Your task to perform on an android device: Check the news Image 0: 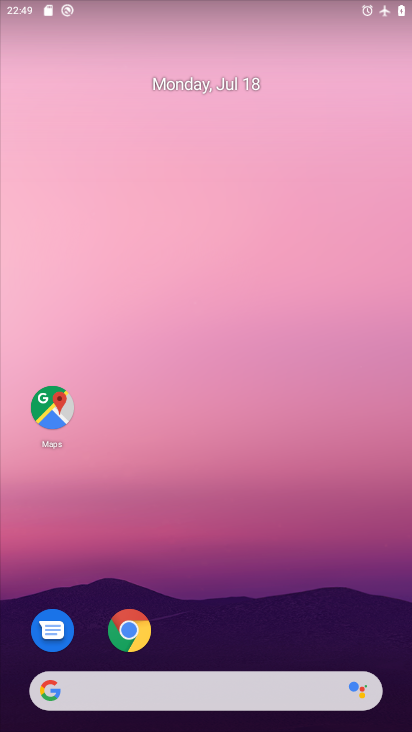
Step 0: click (289, 370)
Your task to perform on an android device: Check the news Image 1: 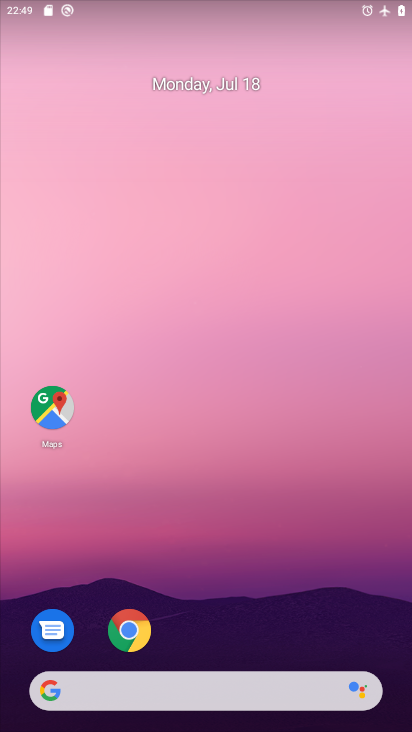
Step 1: drag from (150, 650) to (280, 175)
Your task to perform on an android device: Check the news Image 2: 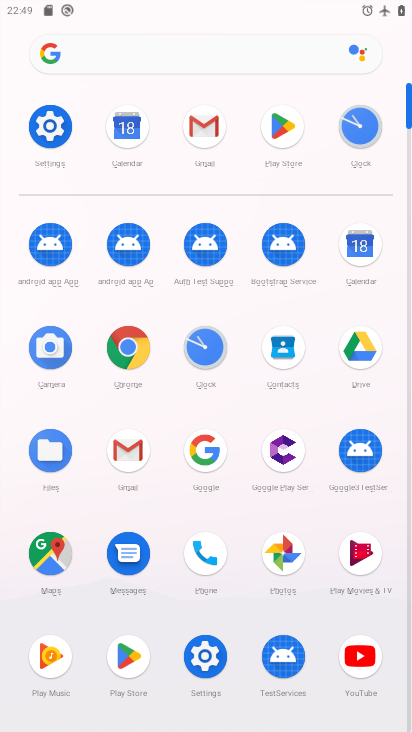
Step 2: click (123, 339)
Your task to perform on an android device: Check the news Image 3: 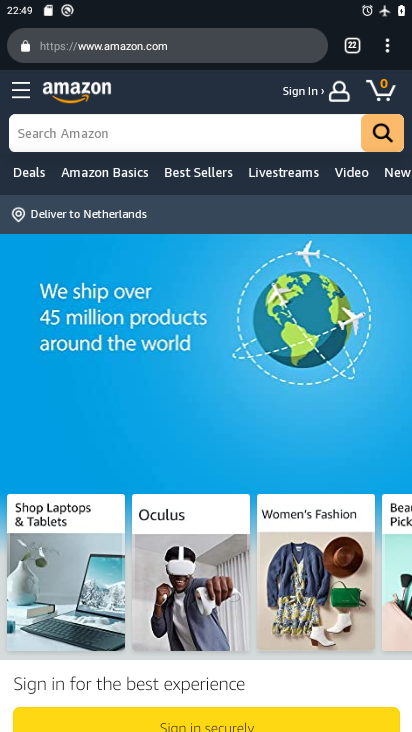
Step 3: click (387, 55)
Your task to perform on an android device: Check the news Image 4: 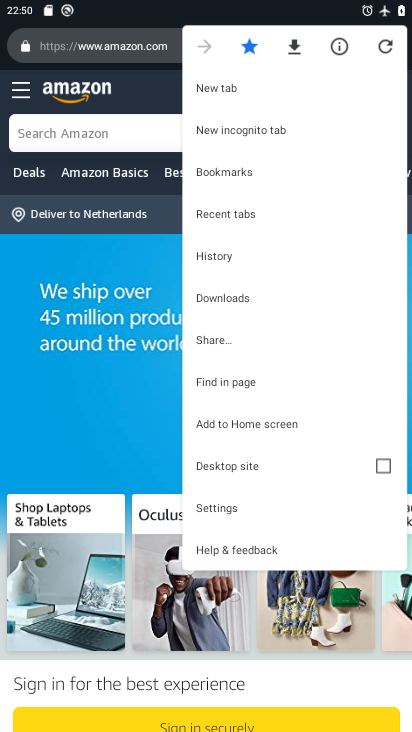
Step 4: click (260, 82)
Your task to perform on an android device: Check the news Image 5: 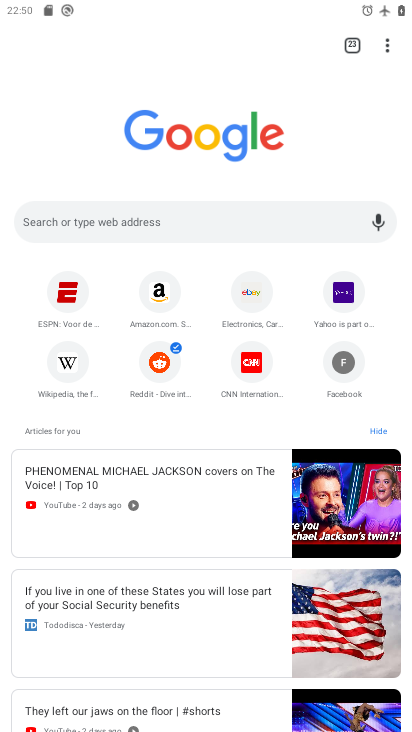
Step 5: click (145, 215)
Your task to perform on an android device: Check the news Image 6: 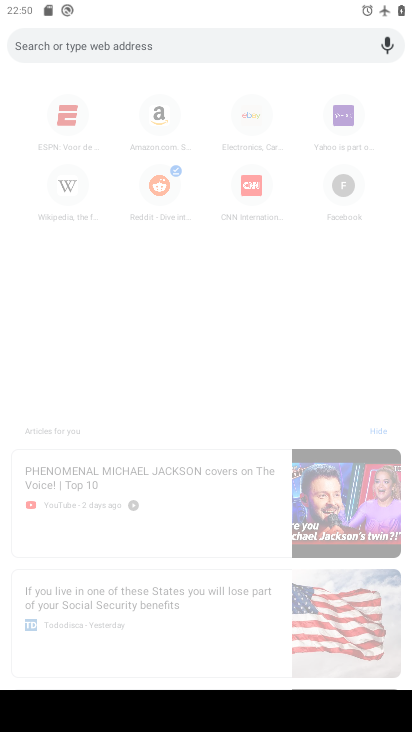
Step 6: type "Check the news "
Your task to perform on an android device: Check the news Image 7: 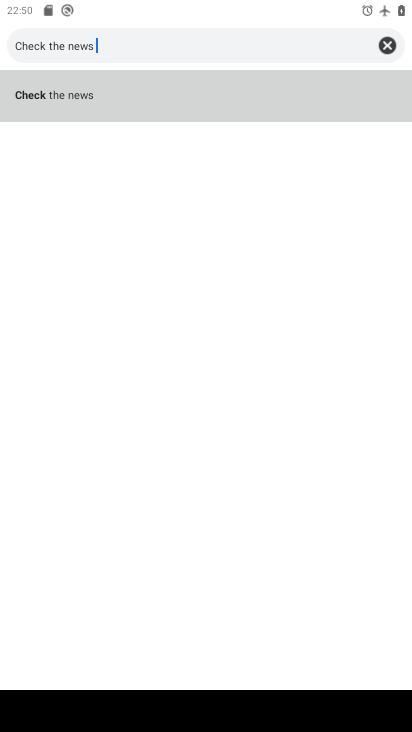
Step 7: click (86, 90)
Your task to perform on an android device: Check the news Image 8: 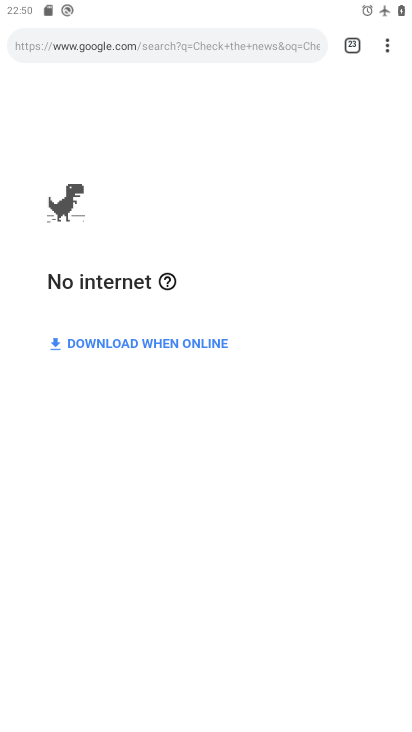
Step 8: task complete